Your task to perform on an android device: Turn off the flashlight Image 0: 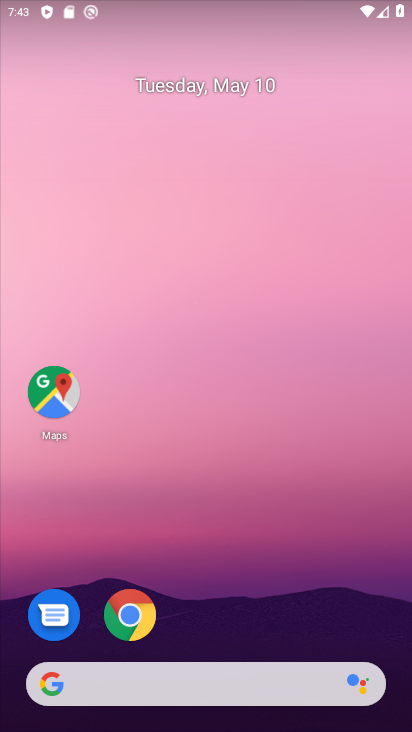
Step 0: drag from (244, 578) to (291, 334)
Your task to perform on an android device: Turn off the flashlight Image 1: 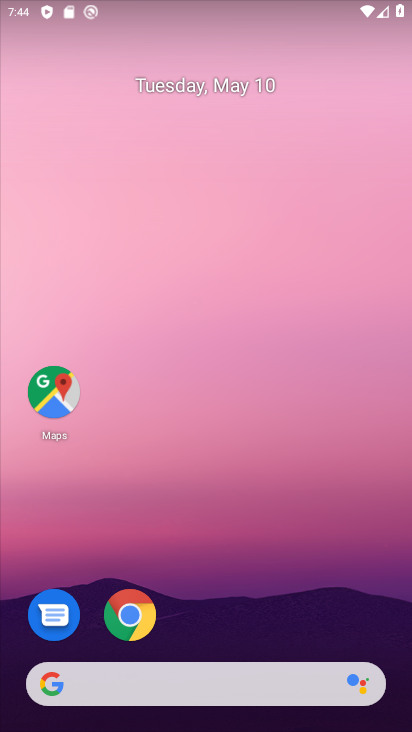
Step 1: drag from (185, 627) to (232, 253)
Your task to perform on an android device: Turn off the flashlight Image 2: 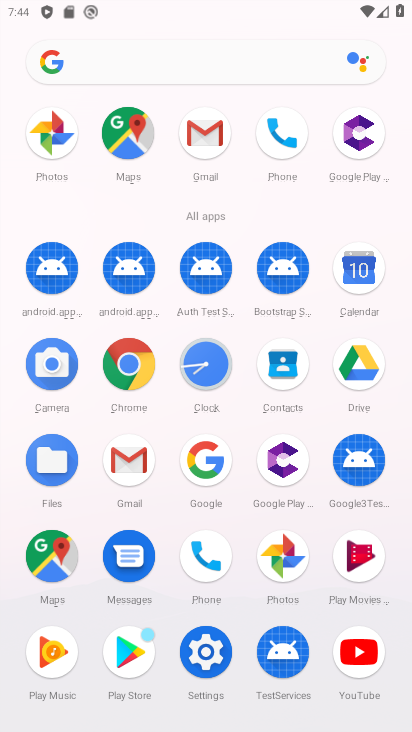
Step 2: click (198, 628)
Your task to perform on an android device: Turn off the flashlight Image 3: 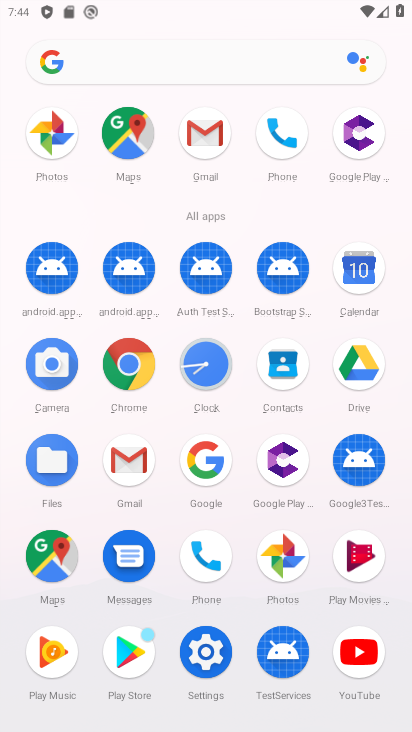
Step 3: click (198, 629)
Your task to perform on an android device: Turn off the flashlight Image 4: 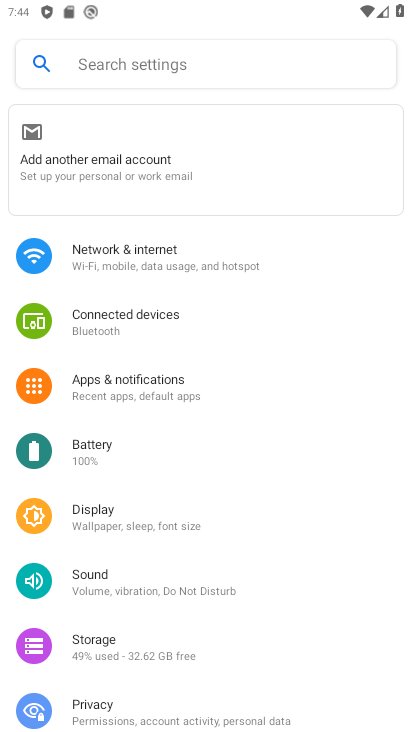
Step 4: drag from (183, 702) to (264, 699)
Your task to perform on an android device: Turn off the flashlight Image 5: 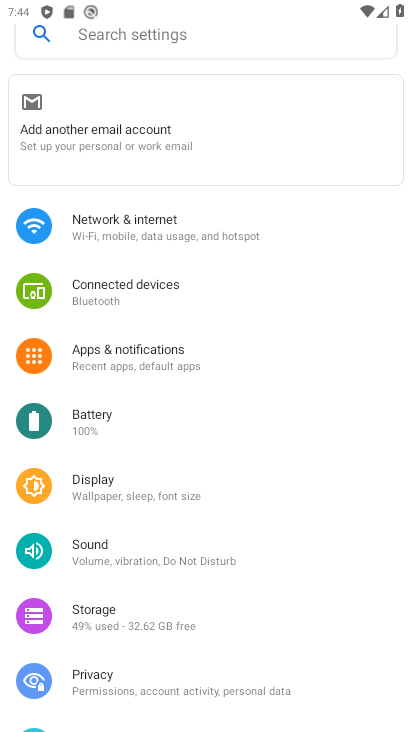
Step 5: click (144, 28)
Your task to perform on an android device: Turn off the flashlight Image 6: 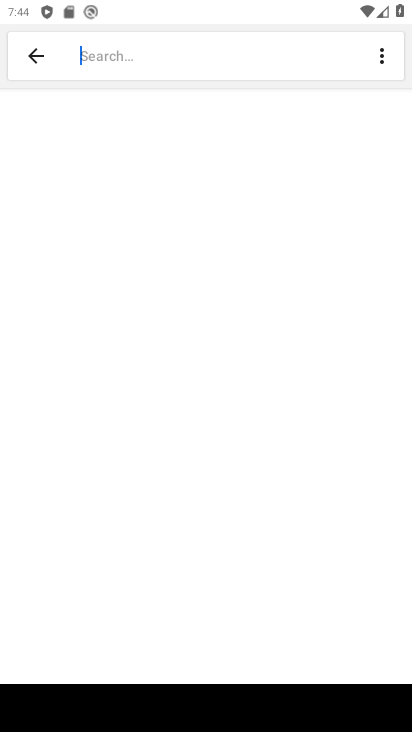
Step 6: type "flashlight"
Your task to perform on an android device: Turn off the flashlight Image 7: 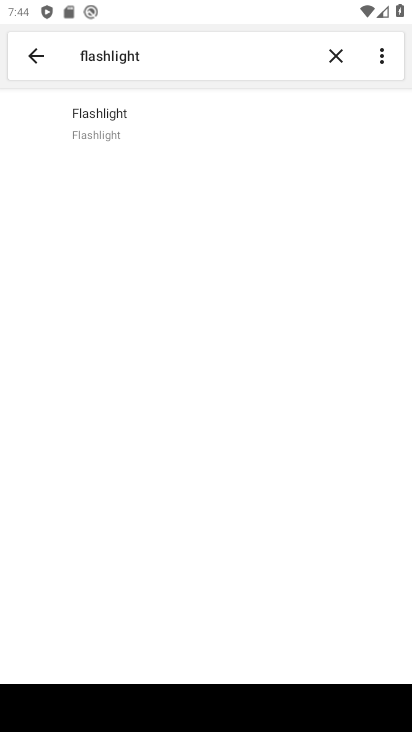
Step 7: click (183, 125)
Your task to perform on an android device: Turn off the flashlight Image 8: 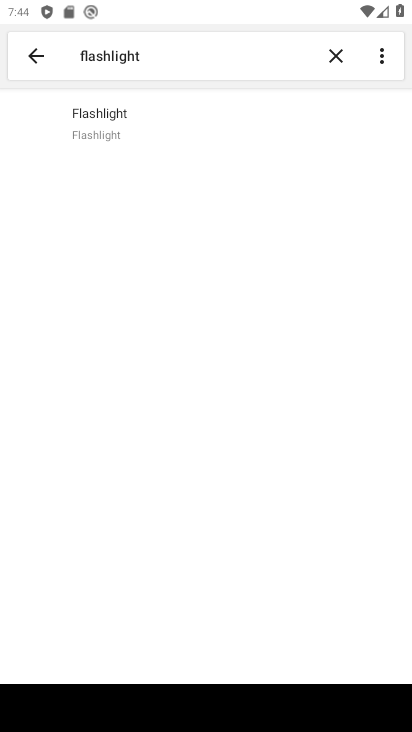
Step 8: task complete